Your task to perform on an android device: open device folders in google photos Image 0: 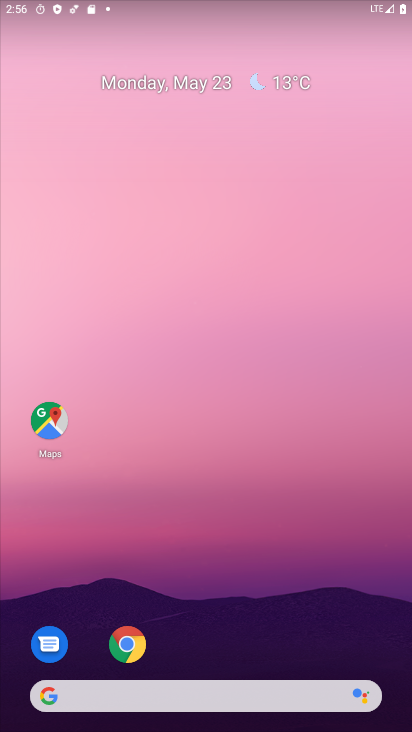
Step 0: drag from (203, 682) to (161, 5)
Your task to perform on an android device: open device folders in google photos Image 1: 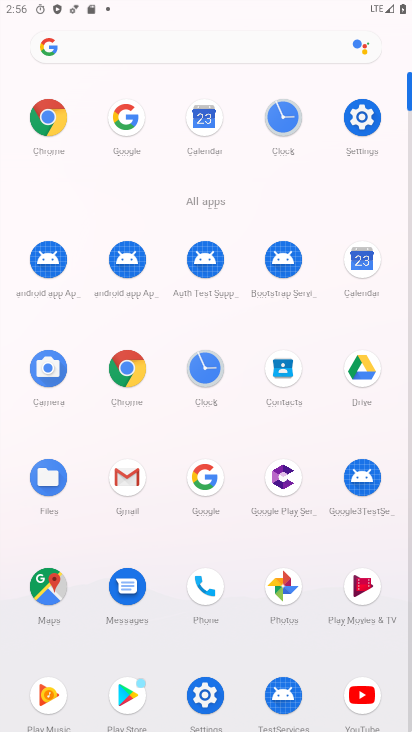
Step 1: click (280, 581)
Your task to perform on an android device: open device folders in google photos Image 2: 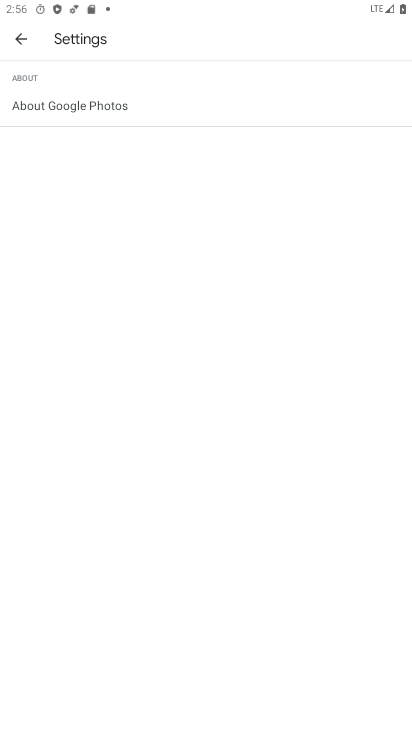
Step 2: click (15, 45)
Your task to perform on an android device: open device folders in google photos Image 3: 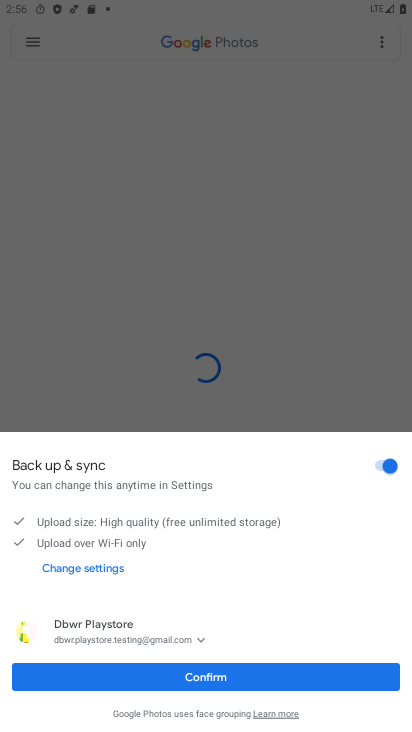
Step 3: click (156, 669)
Your task to perform on an android device: open device folders in google photos Image 4: 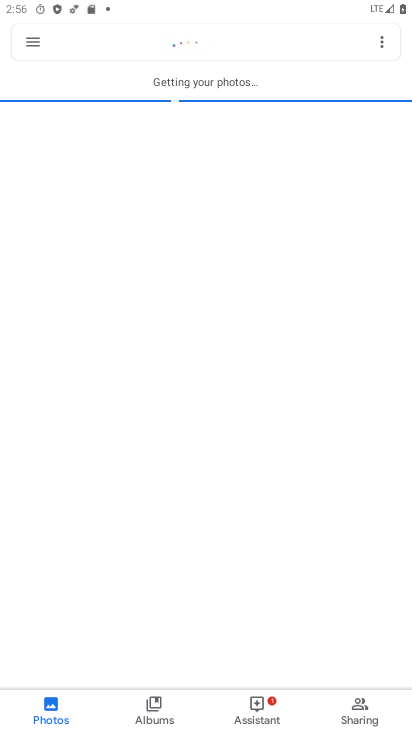
Step 4: click (37, 54)
Your task to perform on an android device: open device folders in google photos Image 5: 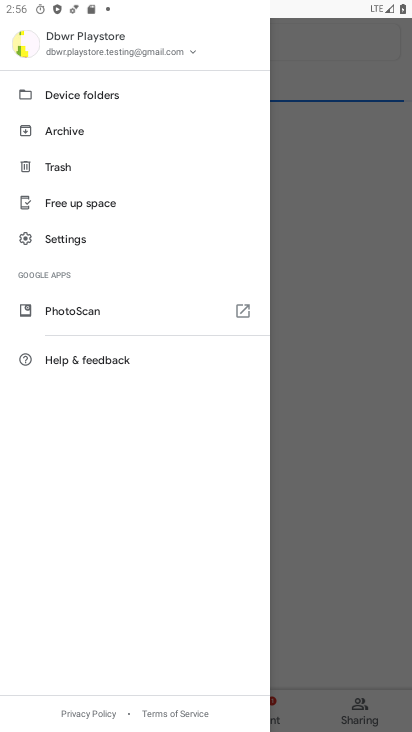
Step 5: click (52, 89)
Your task to perform on an android device: open device folders in google photos Image 6: 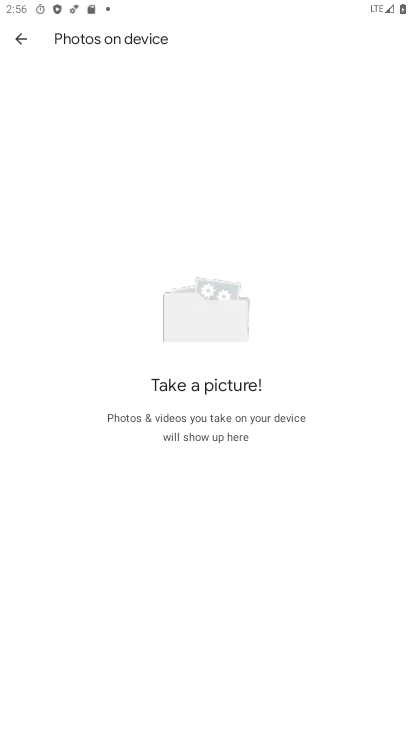
Step 6: task complete